Your task to perform on an android device: Add "alienware aurora" to the cart on target Image 0: 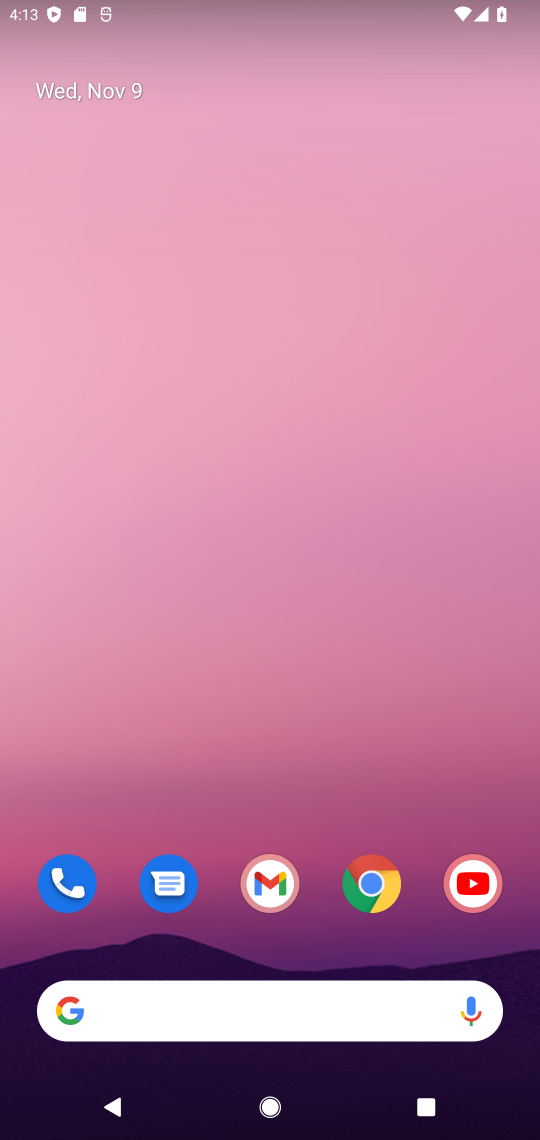
Step 0: click (376, 885)
Your task to perform on an android device: Add "alienware aurora" to the cart on target Image 1: 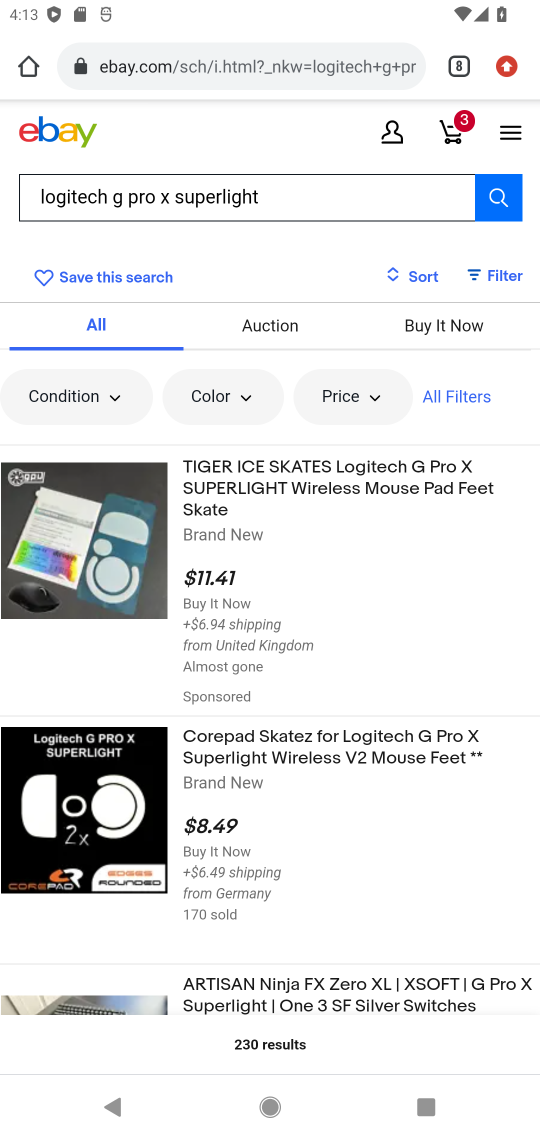
Step 1: click (463, 67)
Your task to perform on an android device: Add "alienware aurora" to the cart on target Image 2: 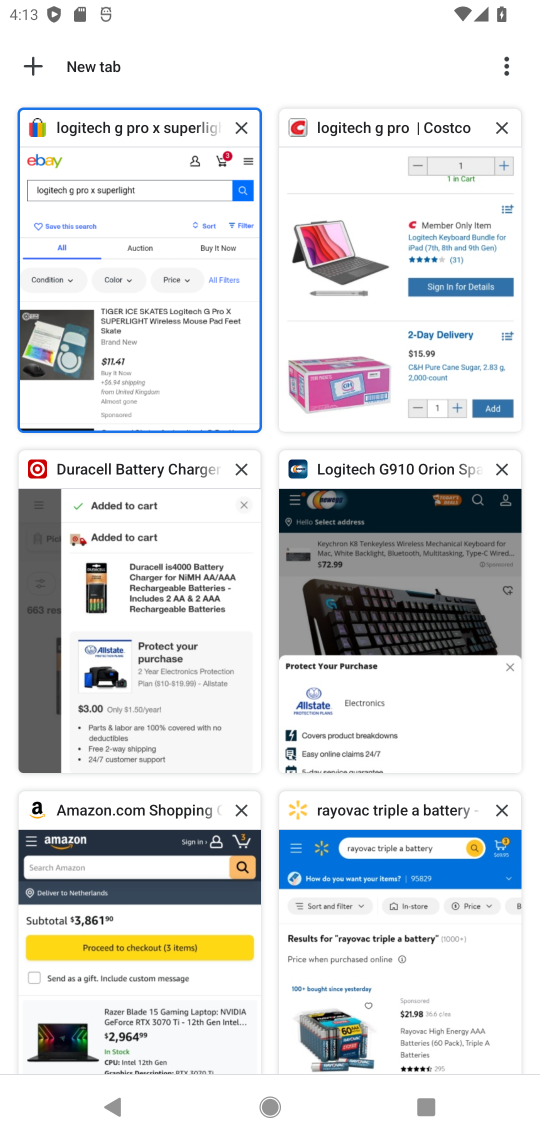
Step 2: click (185, 609)
Your task to perform on an android device: Add "alienware aurora" to the cart on target Image 3: 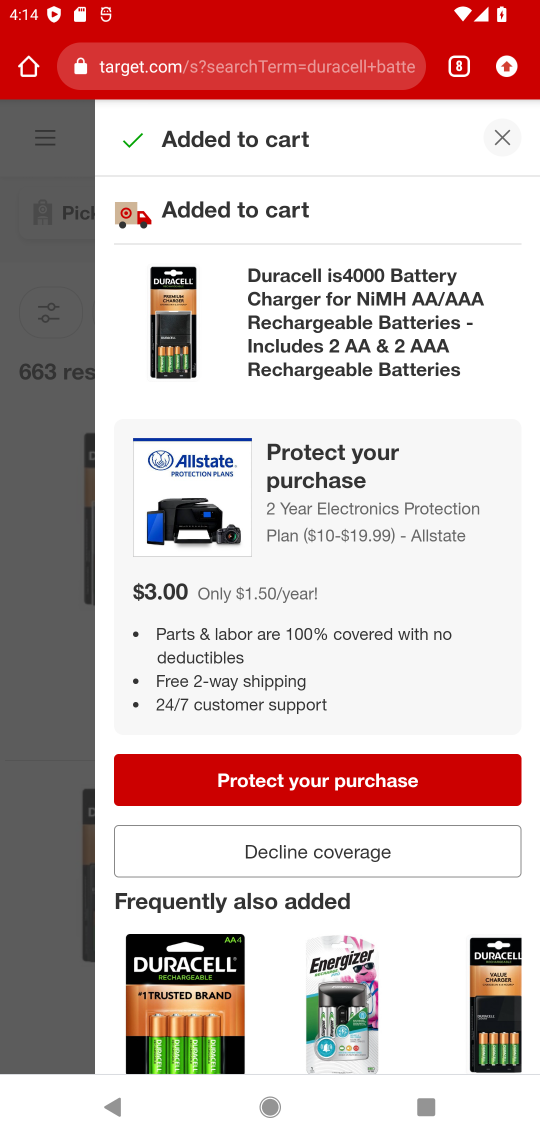
Step 3: click (500, 139)
Your task to perform on an android device: Add "alienware aurora" to the cart on target Image 4: 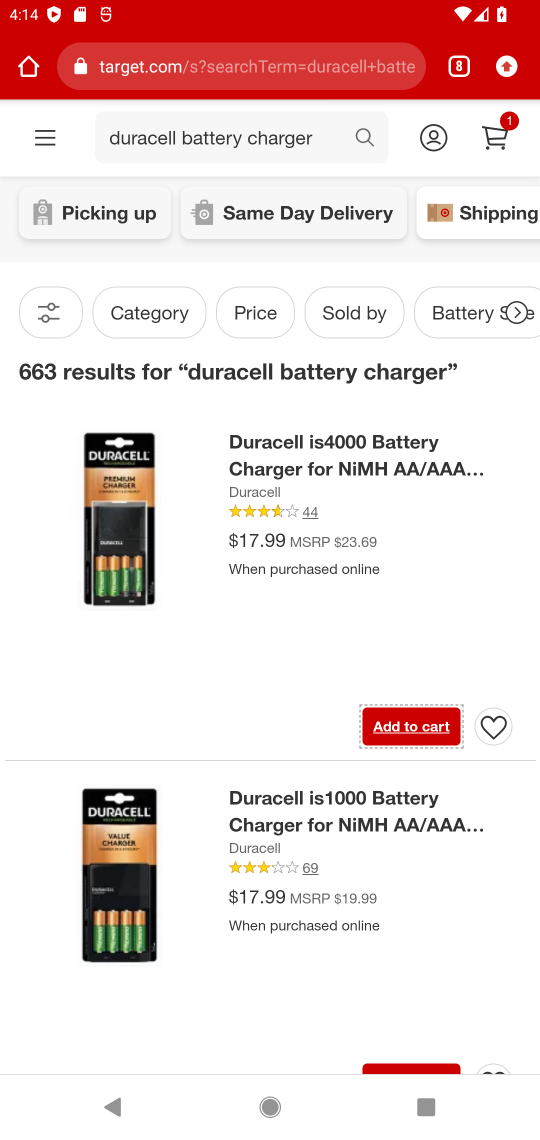
Step 4: click (225, 137)
Your task to perform on an android device: Add "alienware aurora" to the cart on target Image 5: 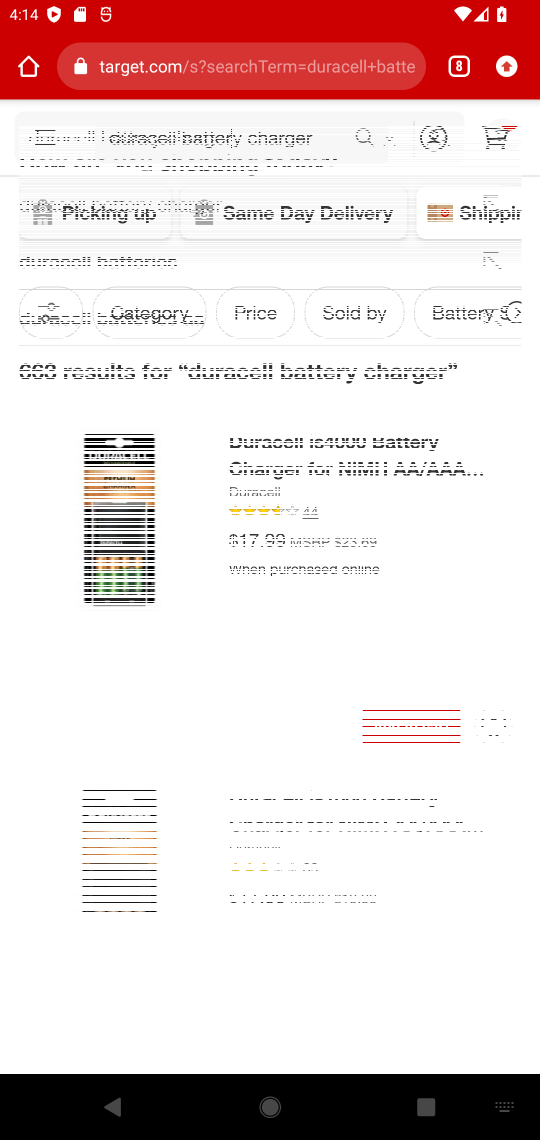
Step 5: click (393, 138)
Your task to perform on an android device: Add "alienware aurora" to the cart on target Image 6: 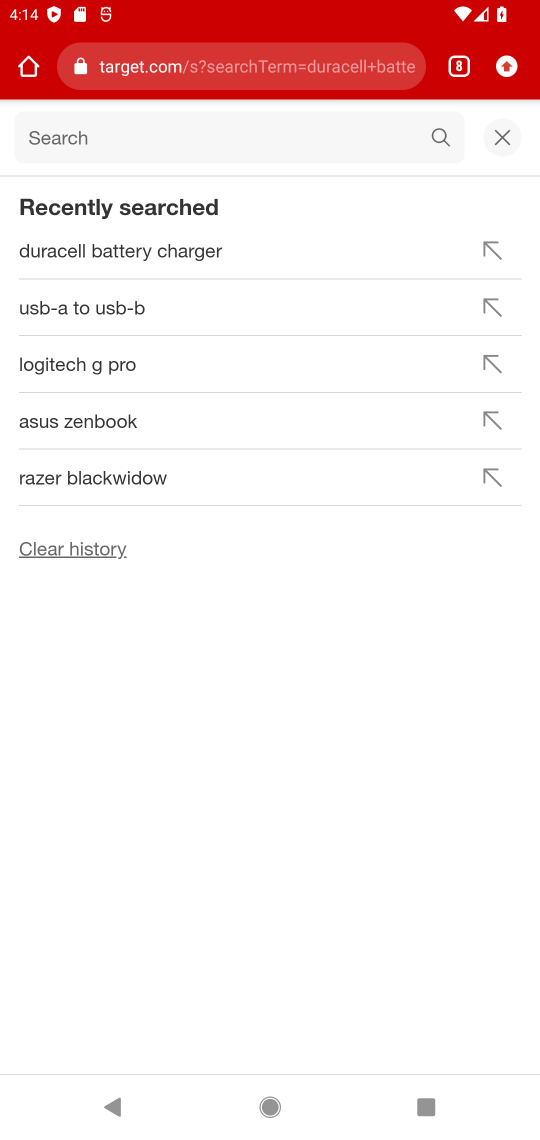
Step 6: type "alienware aurora"
Your task to perform on an android device: Add "alienware aurora" to the cart on target Image 7: 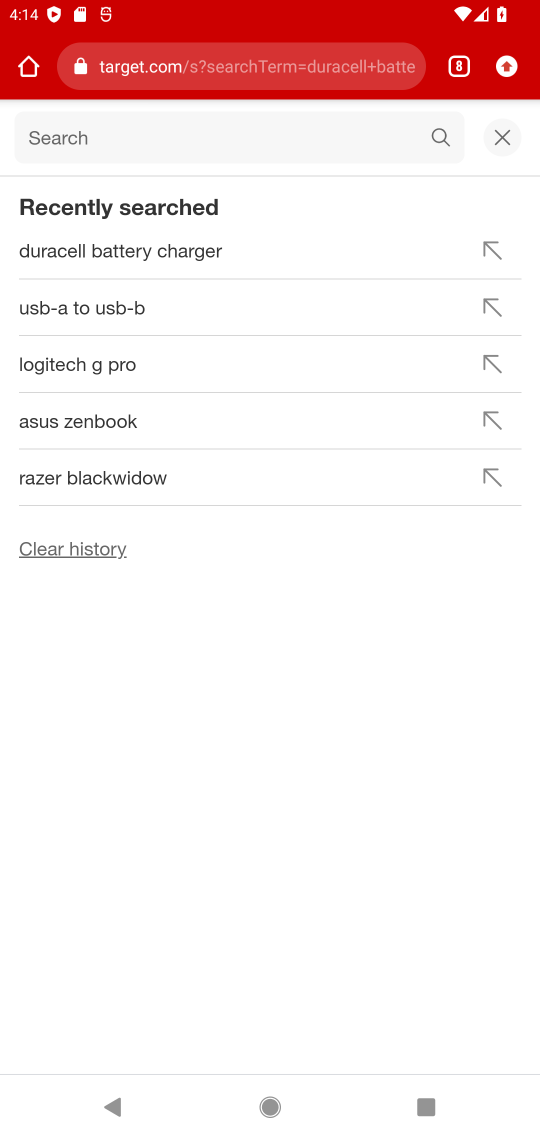
Step 7: click (82, 136)
Your task to perform on an android device: Add "alienware aurora" to the cart on target Image 8: 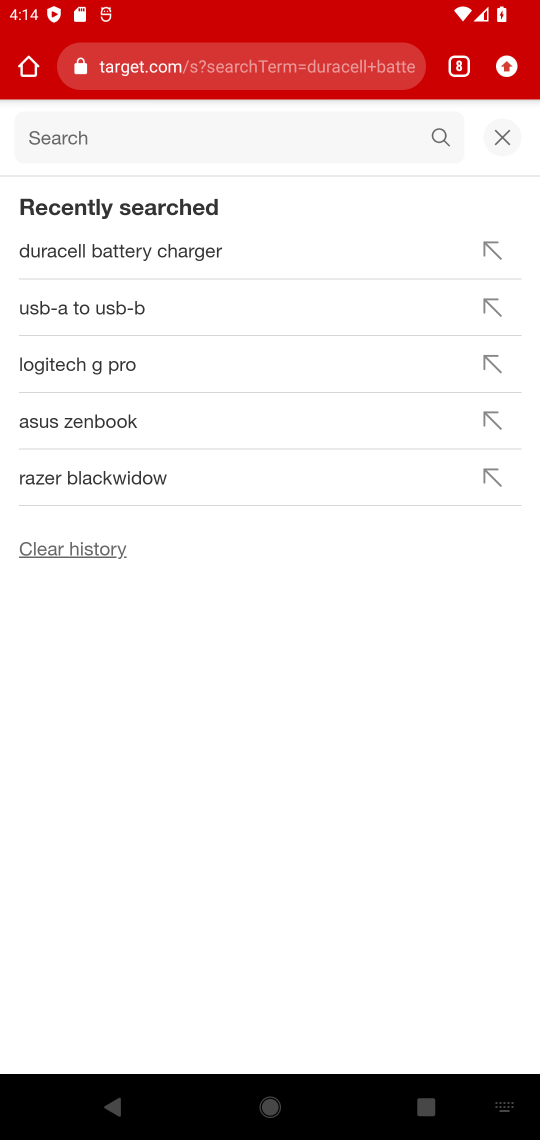
Step 8: type "alienware aurora"
Your task to perform on an android device: Add "alienware aurora" to the cart on target Image 9: 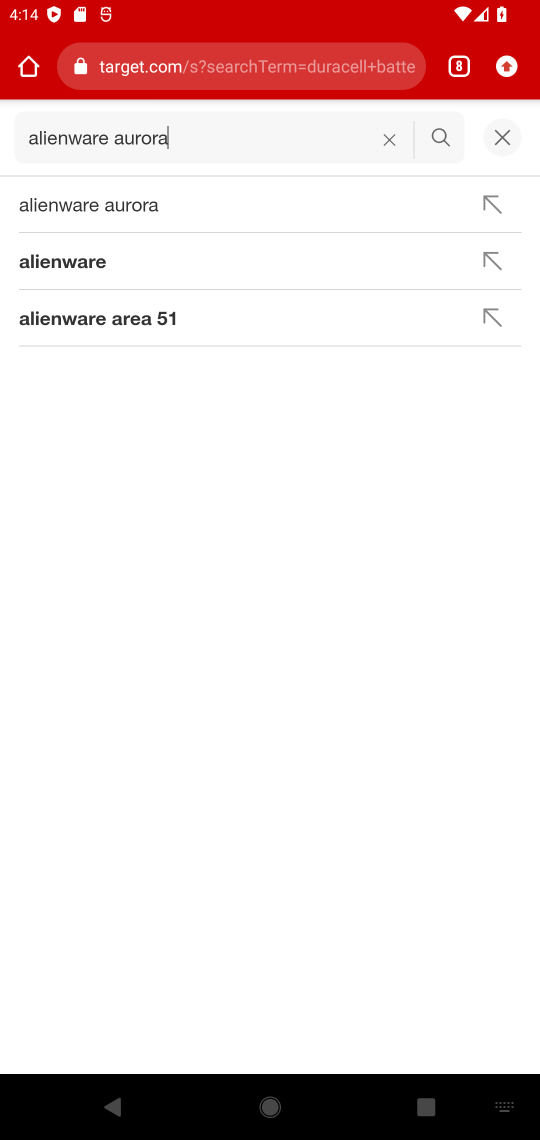
Step 9: click (121, 201)
Your task to perform on an android device: Add "alienware aurora" to the cart on target Image 10: 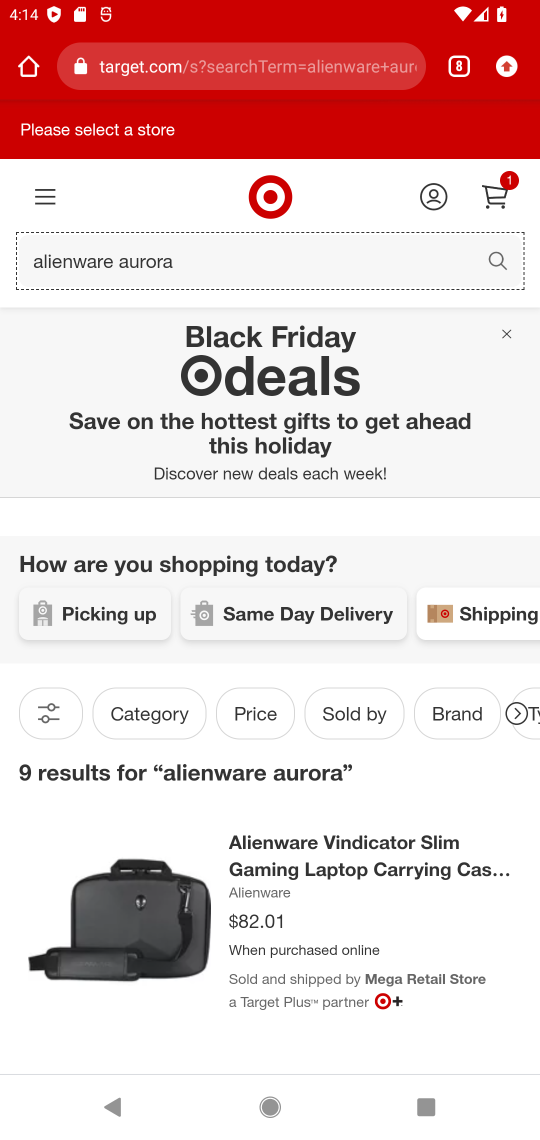
Step 10: drag from (404, 945) to (407, 627)
Your task to perform on an android device: Add "alienware aurora" to the cart on target Image 11: 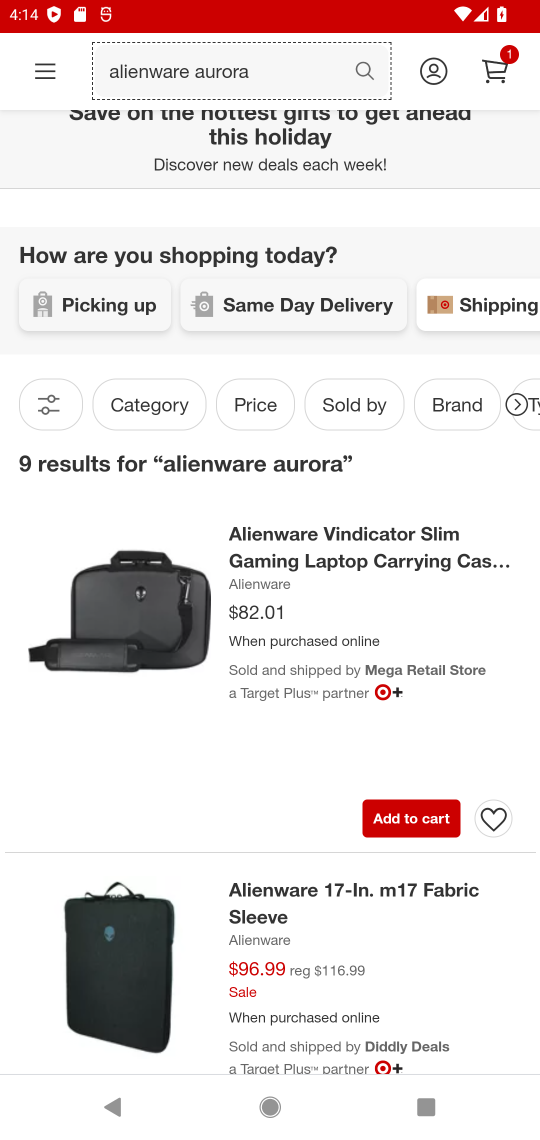
Step 11: drag from (398, 1009) to (369, 513)
Your task to perform on an android device: Add "alienware aurora" to the cart on target Image 12: 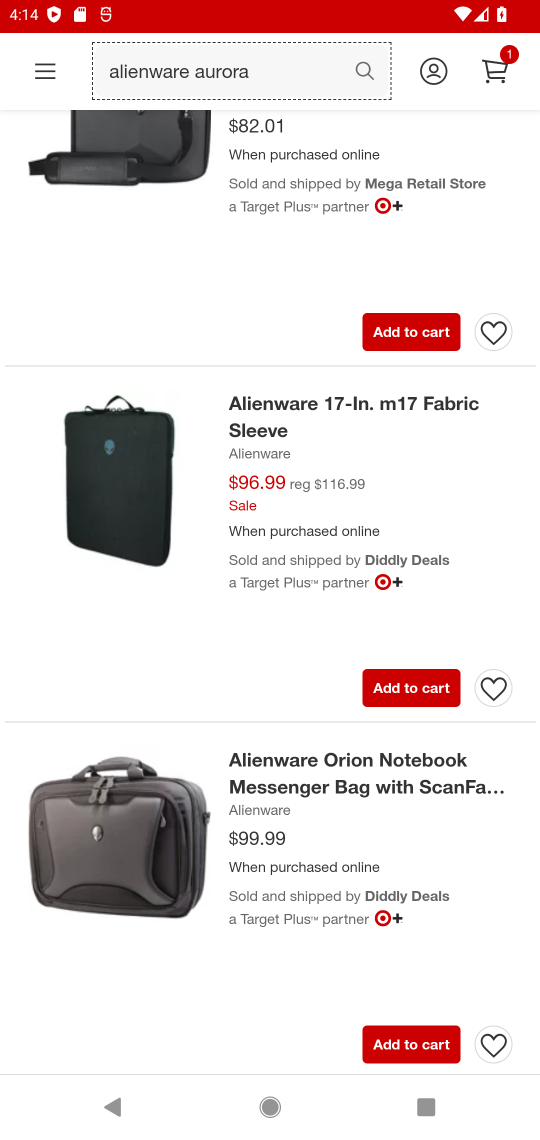
Step 12: click (391, 324)
Your task to perform on an android device: Add "alienware aurora" to the cart on target Image 13: 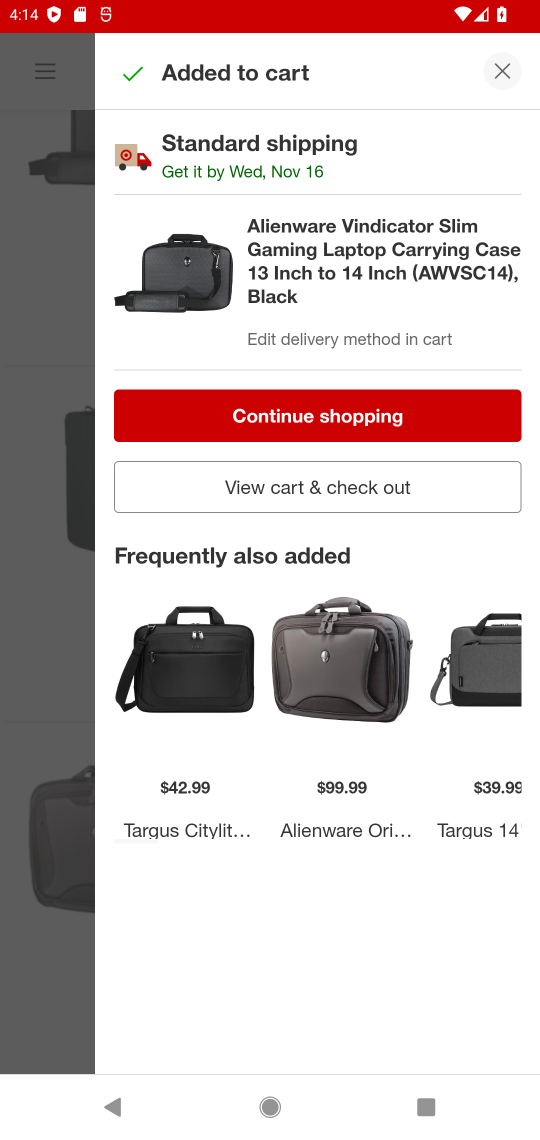
Step 13: task complete